Your task to perform on an android device: Open settings on Google Maps Image 0: 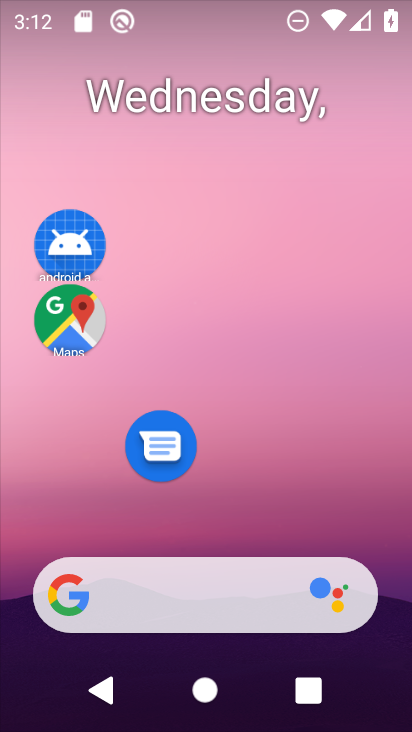
Step 0: click (79, 308)
Your task to perform on an android device: Open settings on Google Maps Image 1: 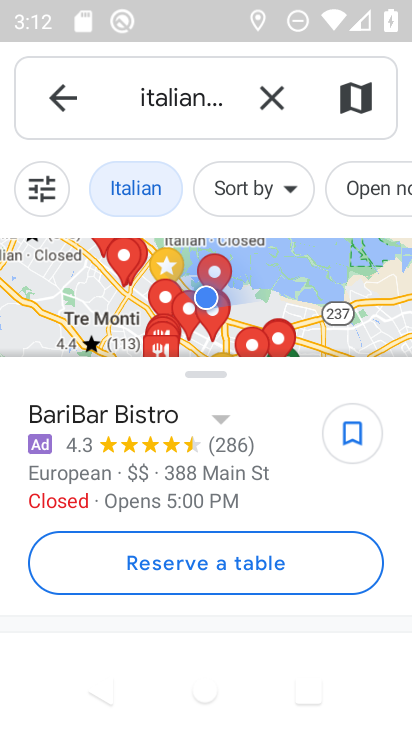
Step 1: click (282, 92)
Your task to perform on an android device: Open settings on Google Maps Image 2: 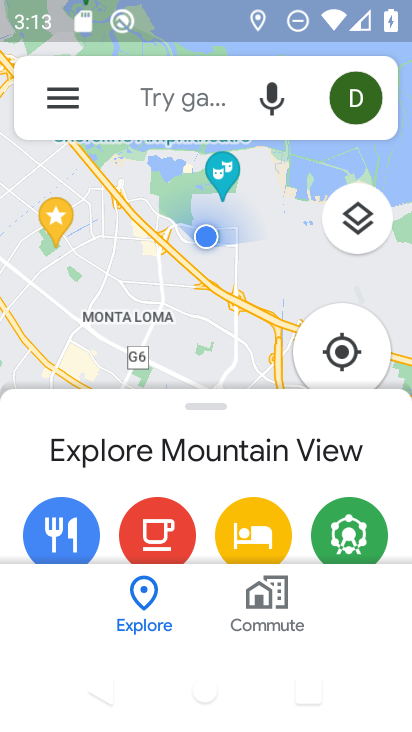
Step 2: click (43, 95)
Your task to perform on an android device: Open settings on Google Maps Image 3: 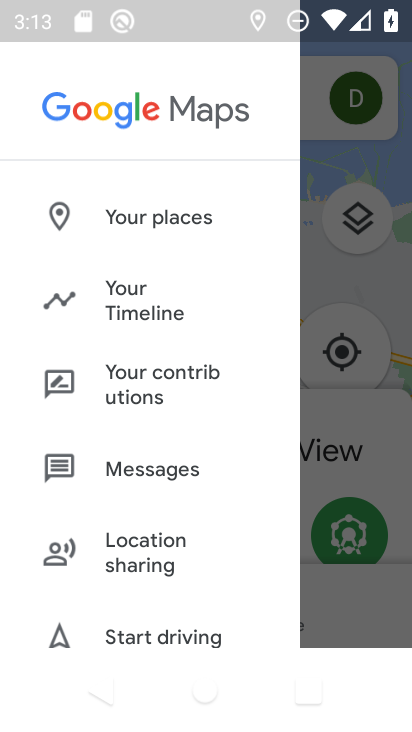
Step 3: drag from (131, 611) to (128, 168)
Your task to perform on an android device: Open settings on Google Maps Image 4: 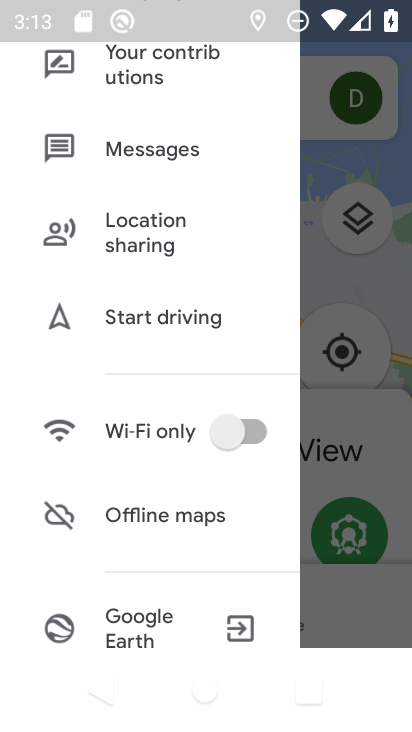
Step 4: drag from (135, 591) to (127, 245)
Your task to perform on an android device: Open settings on Google Maps Image 5: 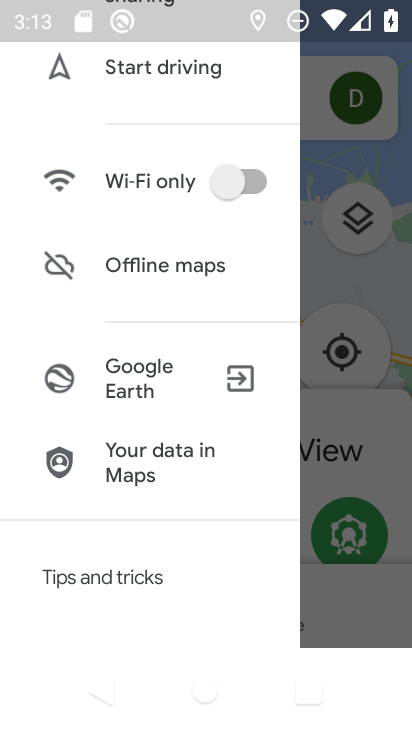
Step 5: drag from (147, 540) to (156, 246)
Your task to perform on an android device: Open settings on Google Maps Image 6: 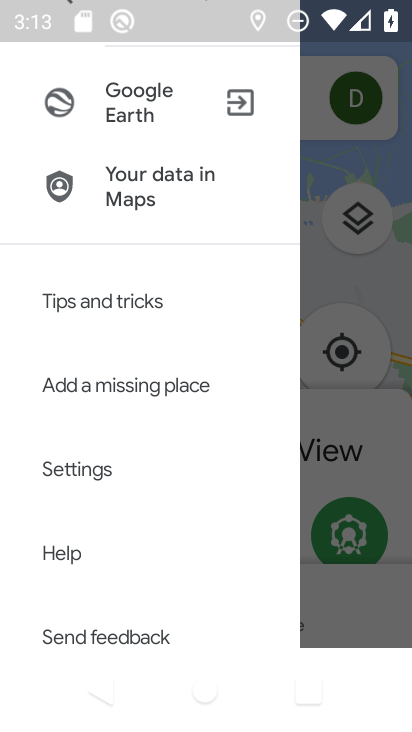
Step 6: click (150, 471)
Your task to perform on an android device: Open settings on Google Maps Image 7: 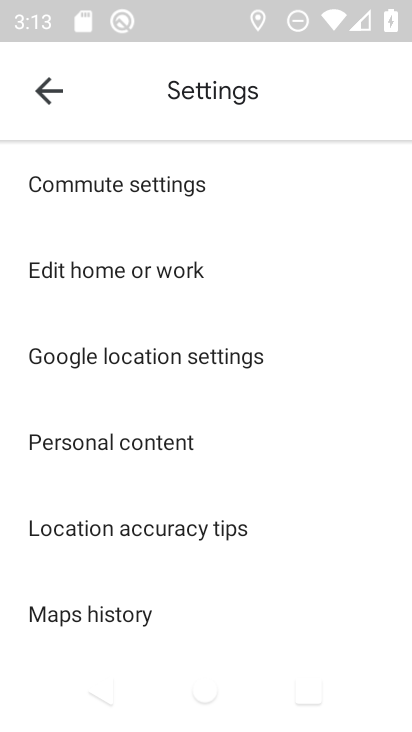
Step 7: task complete